Your task to perform on an android device: Open privacy settings Image 0: 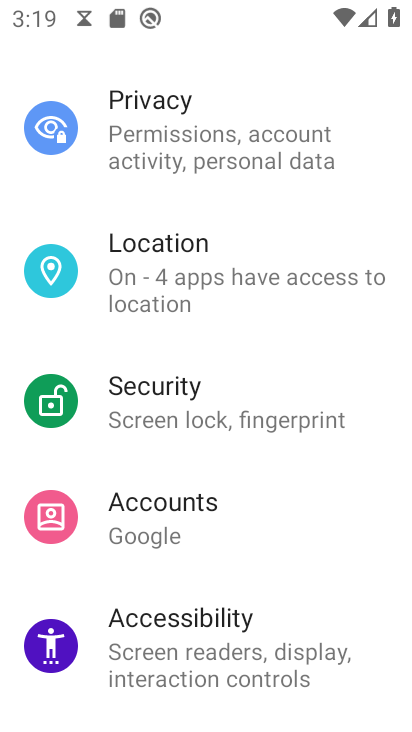
Step 0: click (249, 140)
Your task to perform on an android device: Open privacy settings Image 1: 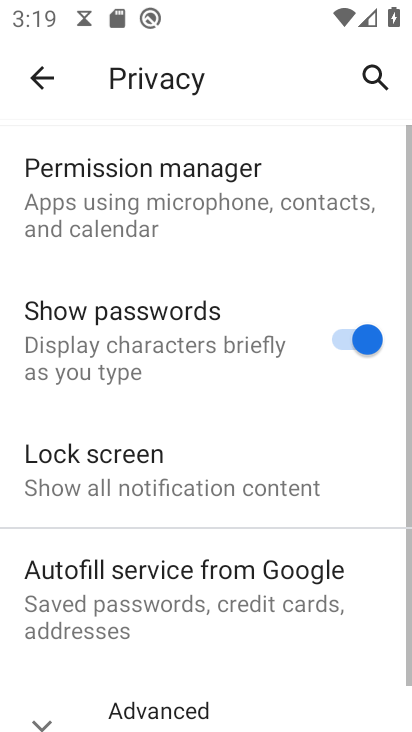
Step 1: task complete